Your task to perform on an android device: Go to ESPN.com Image 0: 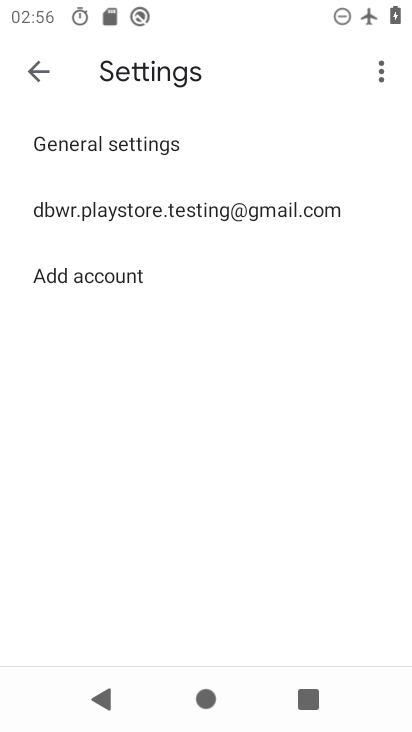
Step 0: press home button
Your task to perform on an android device: Go to ESPN.com Image 1: 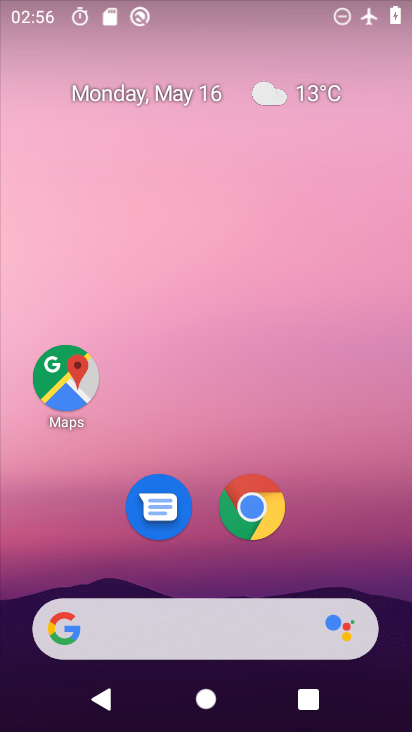
Step 1: click (256, 502)
Your task to perform on an android device: Go to ESPN.com Image 2: 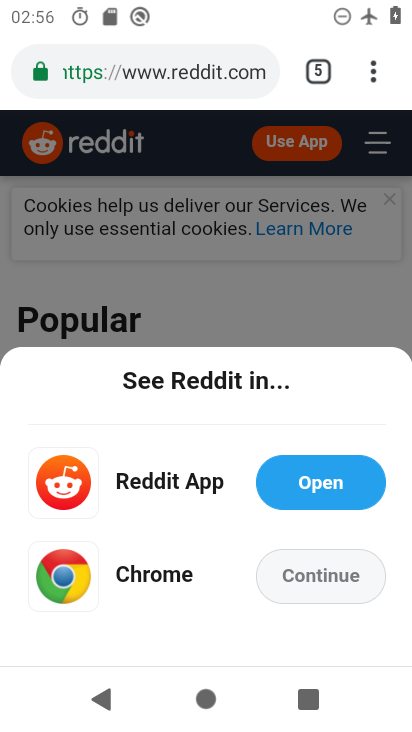
Step 2: click (325, 72)
Your task to perform on an android device: Go to ESPN.com Image 3: 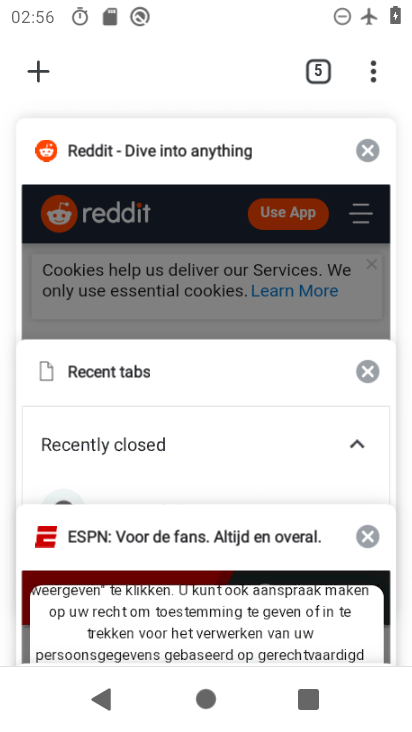
Step 3: click (177, 538)
Your task to perform on an android device: Go to ESPN.com Image 4: 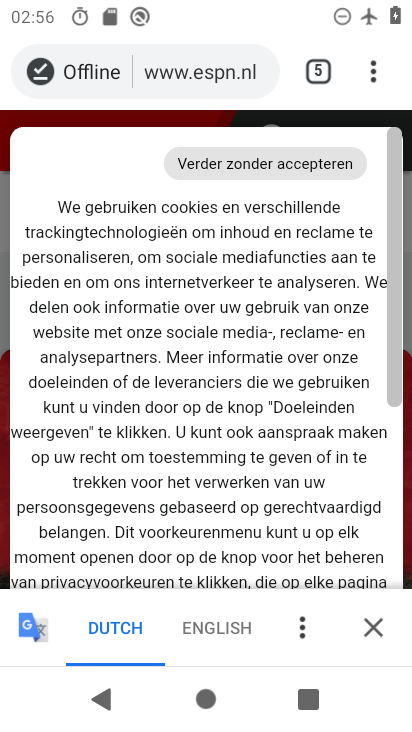
Step 4: task complete